Your task to perform on an android device: toggle javascript in the chrome app Image 0: 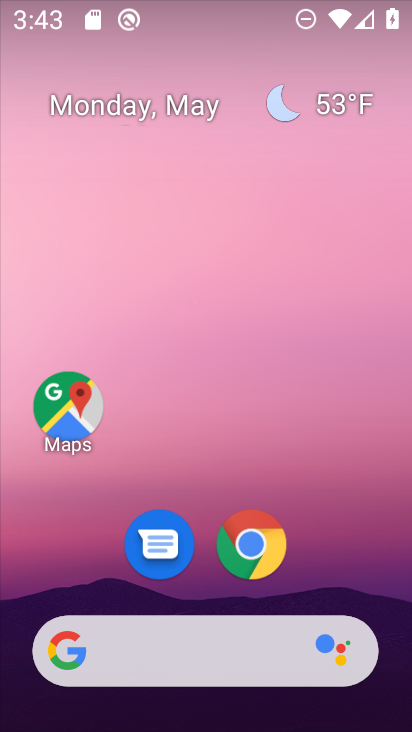
Step 0: click (261, 556)
Your task to perform on an android device: toggle javascript in the chrome app Image 1: 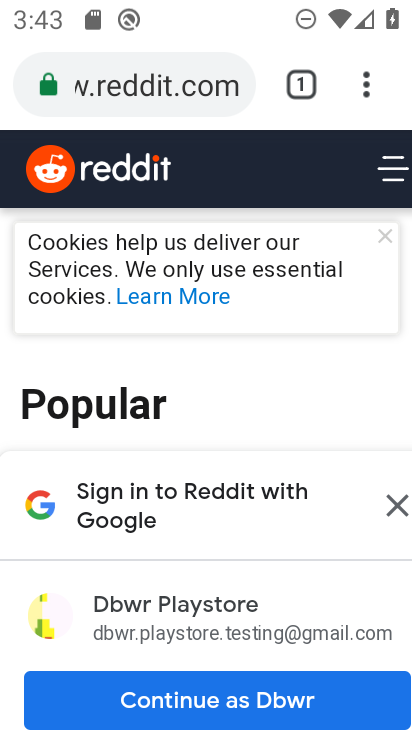
Step 1: click (372, 91)
Your task to perform on an android device: toggle javascript in the chrome app Image 2: 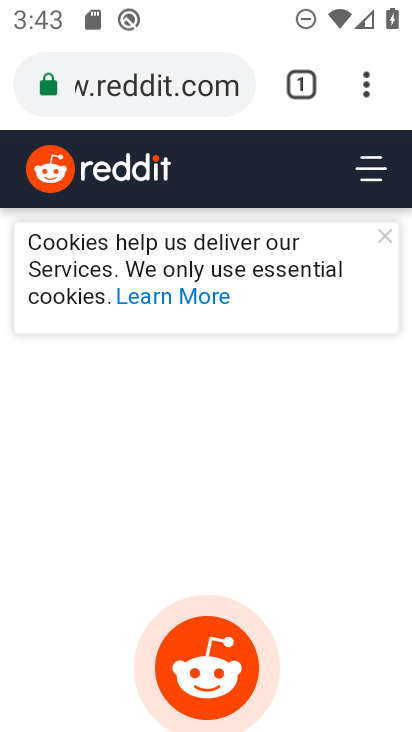
Step 2: click (363, 80)
Your task to perform on an android device: toggle javascript in the chrome app Image 3: 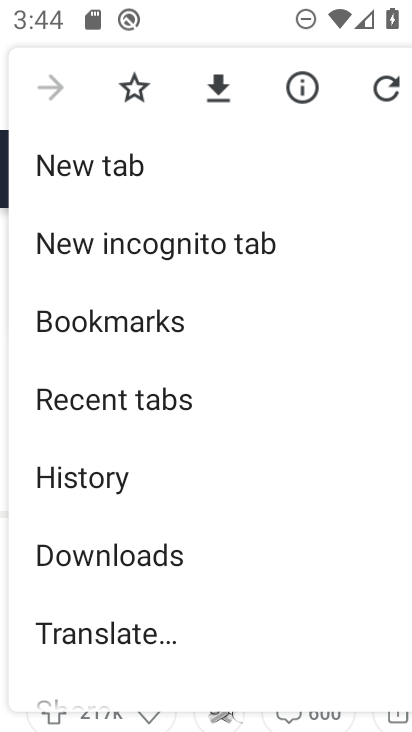
Step 3: drag from (203, 636) to (258, 191)
Your task to perform on an android device: toggle javascript in the chrome app Image 4: 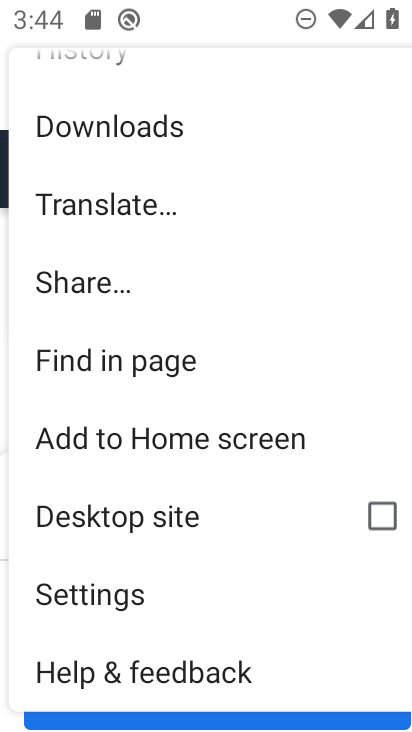
Step 4: click (126, 602)
Your task to perform on an android device: toggle javascript in the chrome app Image 5: 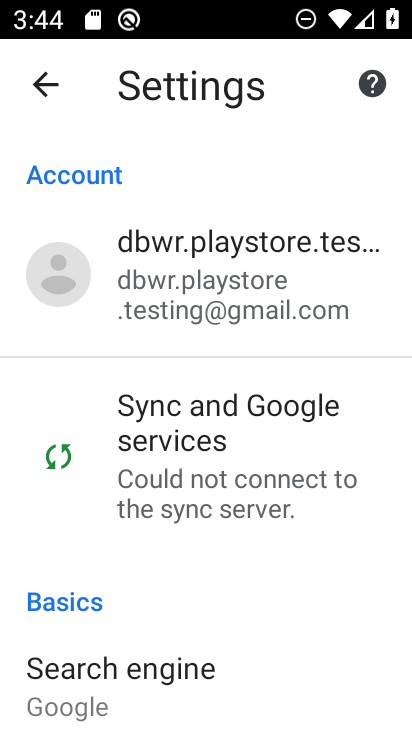
Step 5: drag from (172, 550) to (5, 78)
Your task to perform on an android device: toggle javascript in the chrome app Image 6: 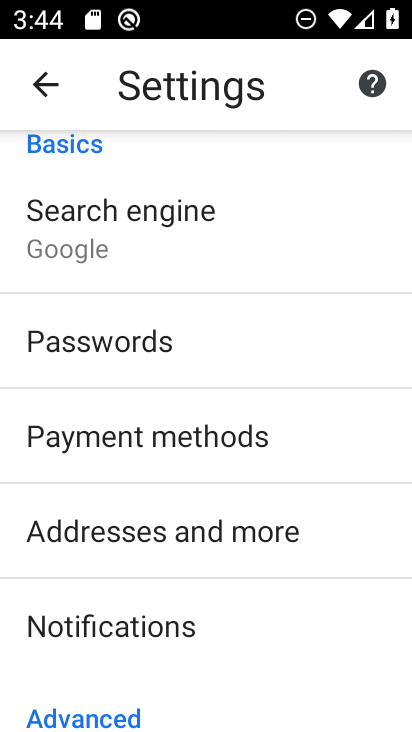
Step 6: drag from (202, 654) to (213, 239)
Your task to perform on an android device: toggle javascript in the chrome app Image 7: 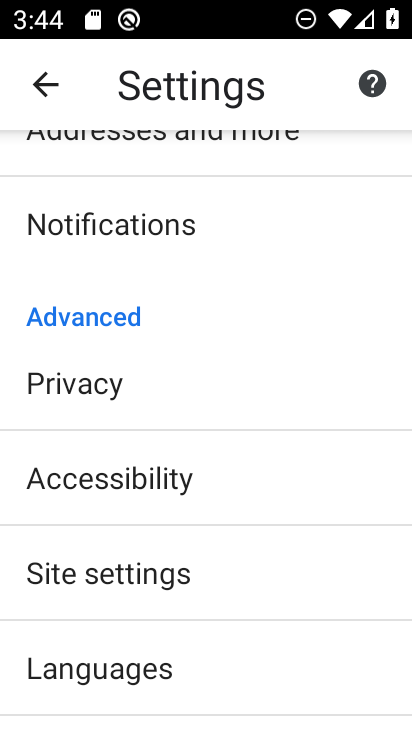
Step 7: click (94, 583)
Your task to perform on an android device: toggle javascript in the chrome app Image 8: 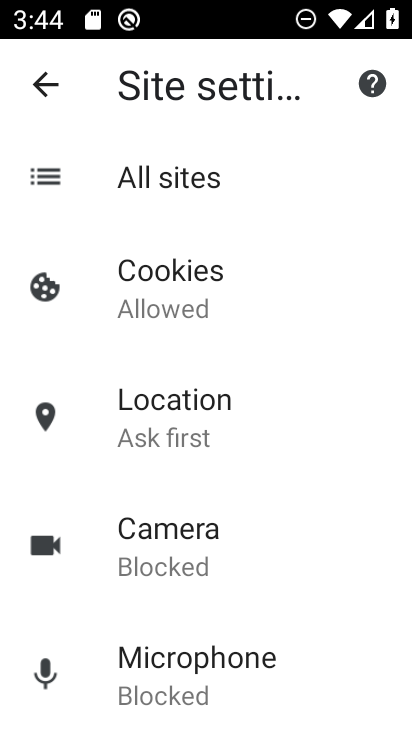
Step 8: drag from (240, 418) to (239, 208)
Your task to perform on an android device: toggle javascript in the chrome app Image 9: 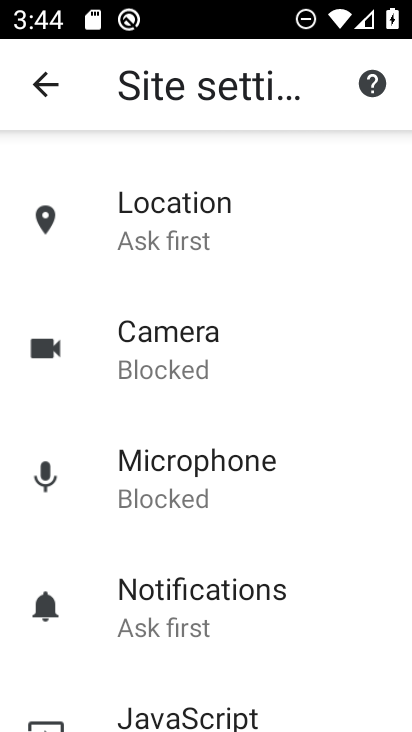
Step 9: click (216, 706)
Your task to perform on an android device: toggle javascript in the chrome app Image 10: 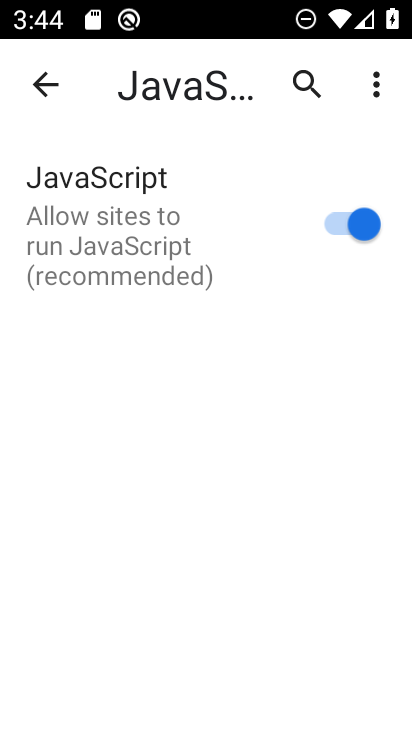
Step 10: click (353, 219)
Your task to perform on an android device: toggle javascript in the chrome app Image 11: 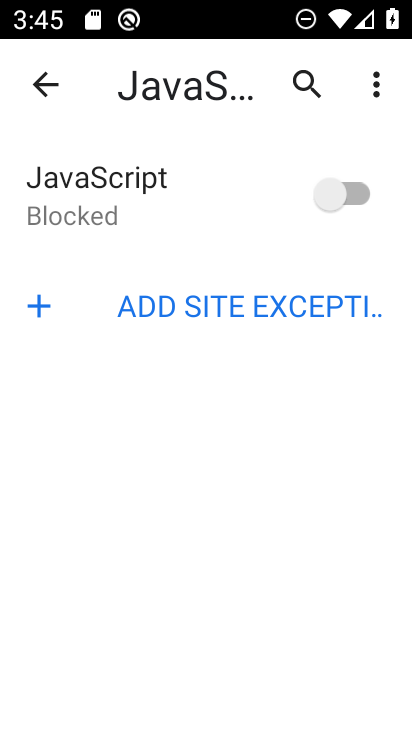
Step 11: task complete